Your task to perform on an android device: delete the emails in spam in the gmail app Image 0: 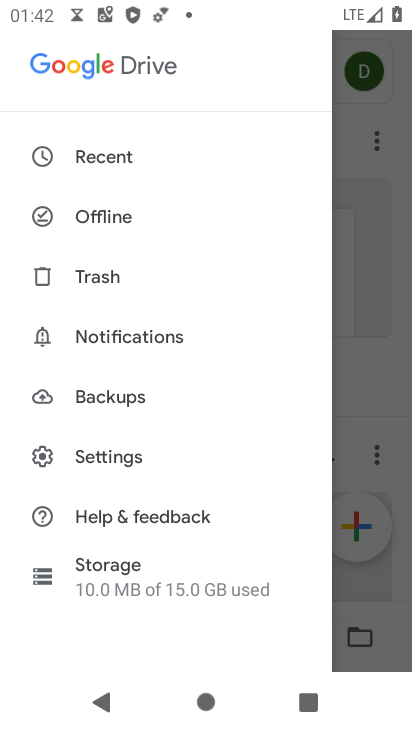
Step 0: press home button
Your task to perform on an android device: delete the emails in spam in the gmail app Image 1: 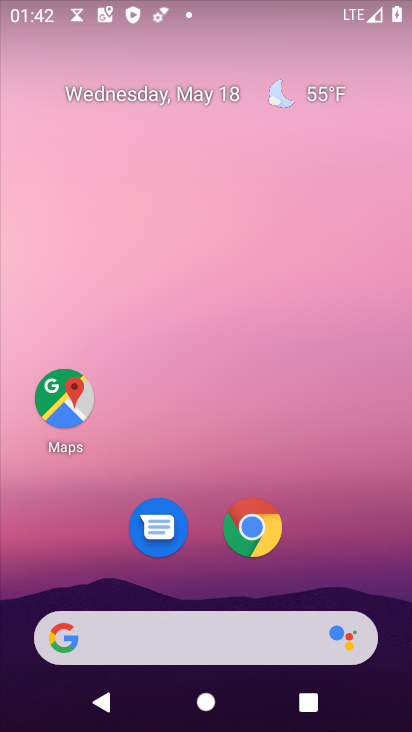
Step 1: drag from (344, 549) to (243, 23)
Your task to perform on an android device: delete the emails in spam in the gmail app Image 2: 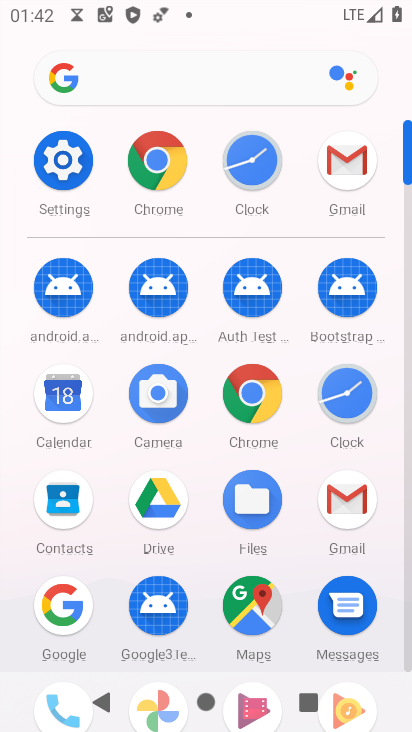
Step 2: click (337, 170)
Your task to perform on an android device: delete the emails in spam in the gmail app Image 3: 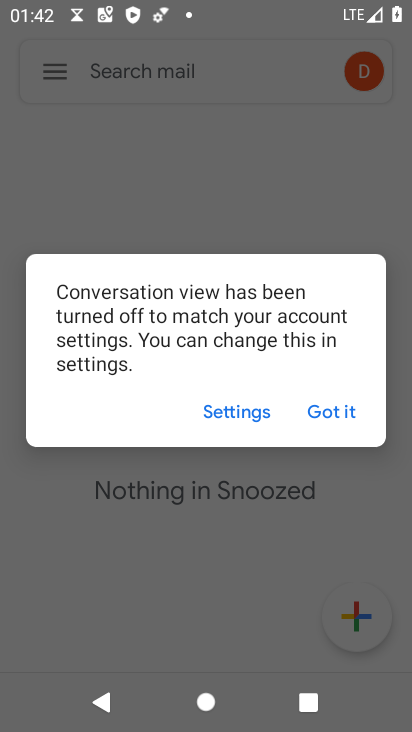
Step 3: click (55, 75)
Your task to perform on an android device: delete the emails in spam in the gmail app Image 4: 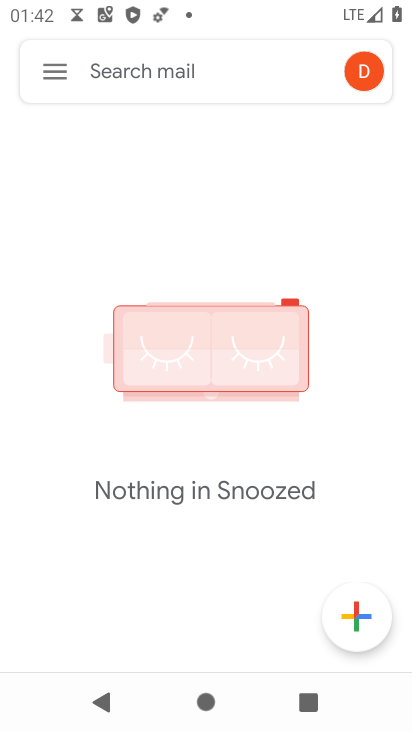
Step 4: click (55, 75)
Your task to perform on an android device: delete the emails in spam in the gmail app Image 5: 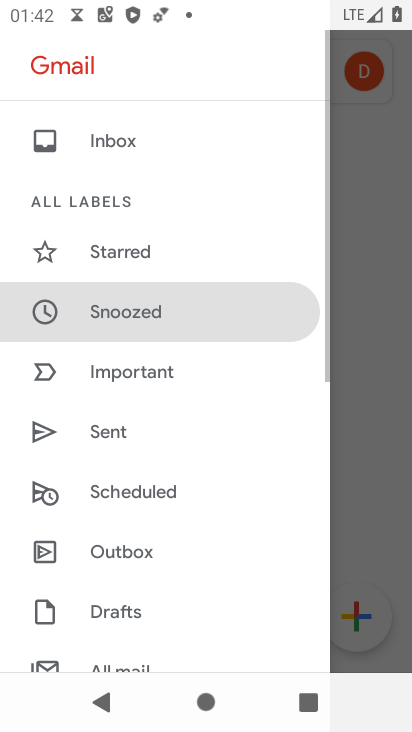
Step 5: drag from (144, 598) to (166, 219)
Your task to perform on an android device: delete the emails in spam in the gmail app Image 6: 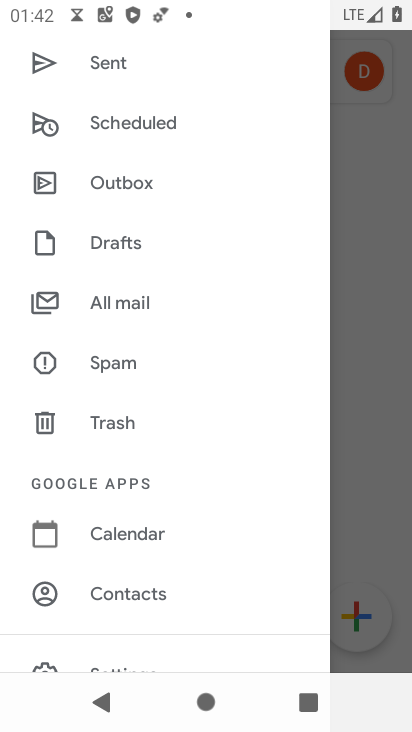
Step 6: click (139, 371)
Your task to perform on an android device: delete the emails in spam in the gmail app Image 7: 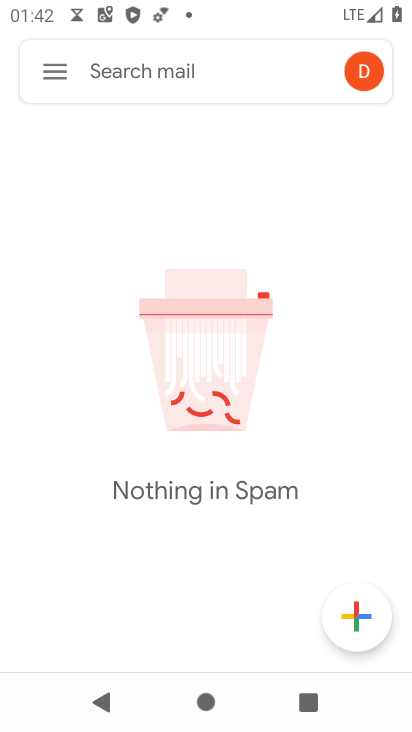
Step 7: task complete